Your task to perform on an android device: Set the phone to "Do not disturb". Image 0: 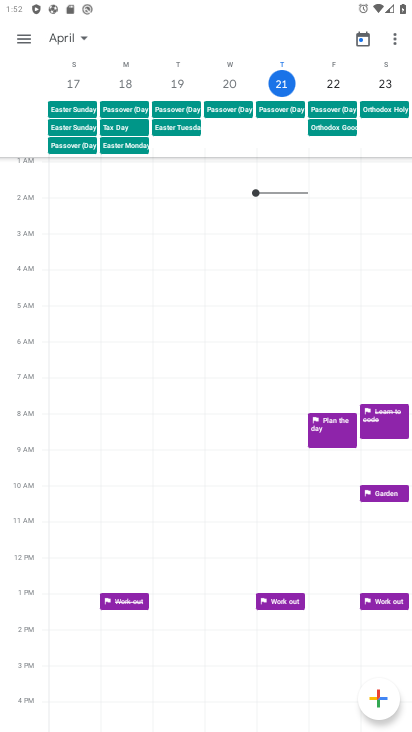
Step 0: press home button
Your task to perform on an android device: Set the phone to "Do not disturb". Image 1: 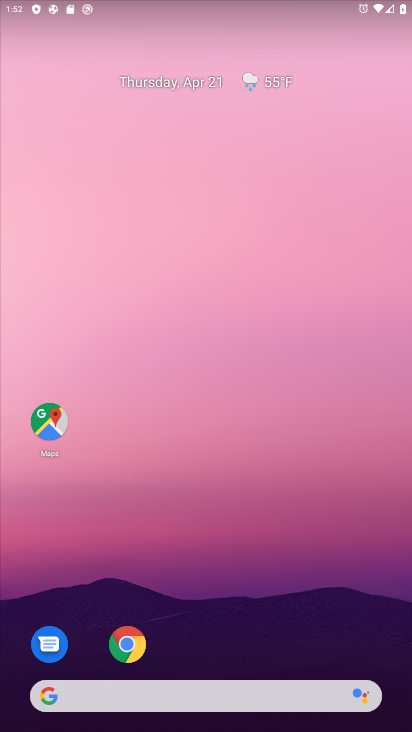
Step 1: drag from (286, 598) to (262, 127)
Your task to perform on an android device: Set the phone to "Do not disturb". Image 2: 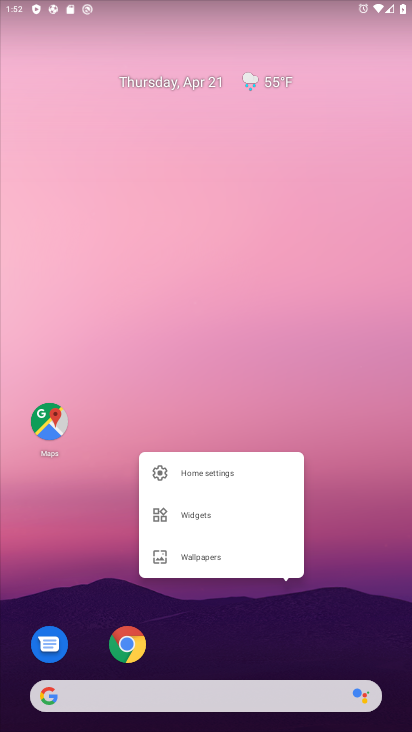
Step 2: drag from (360, 625) to (274, 72)
Your task to perform on an android device: Set the phone to "Do not disturb". Image 3: 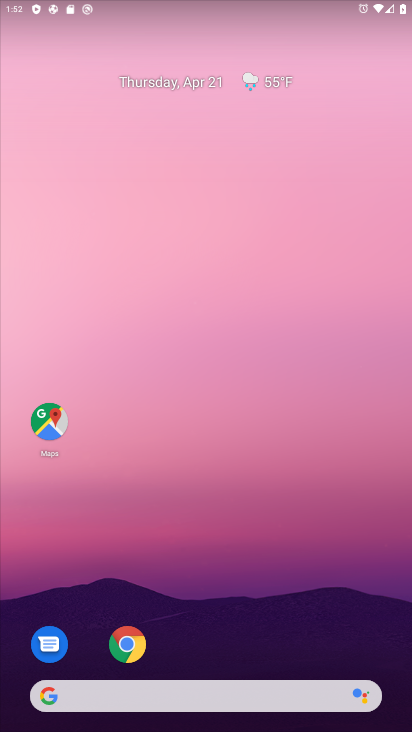
Step 3: drag from (246, 640) to (235, 12)
Your task to perform on an android device: Set the phone to "Do not disturb". Image 4: 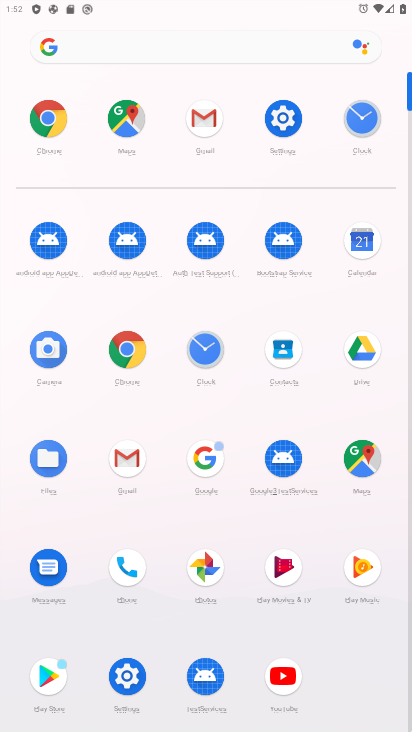
Step 4: click (292, 122)
Your task to perform on an android device: Set the phone to "Do not disturb". Image 5: 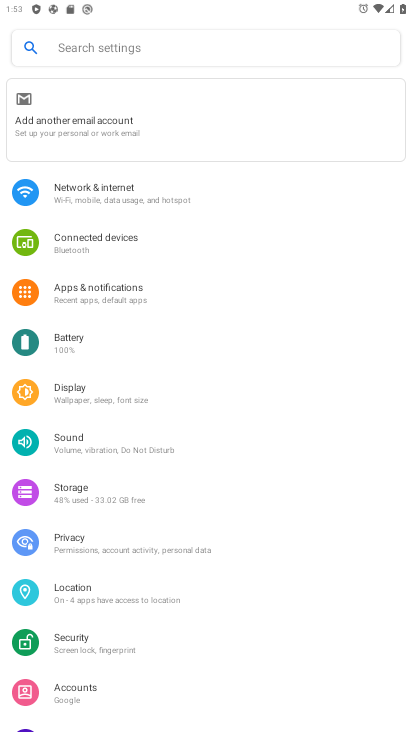
Step 5: click (243, 449)
Your task to perform on an android device: Set the phone to "Do not disturb". Image 6: 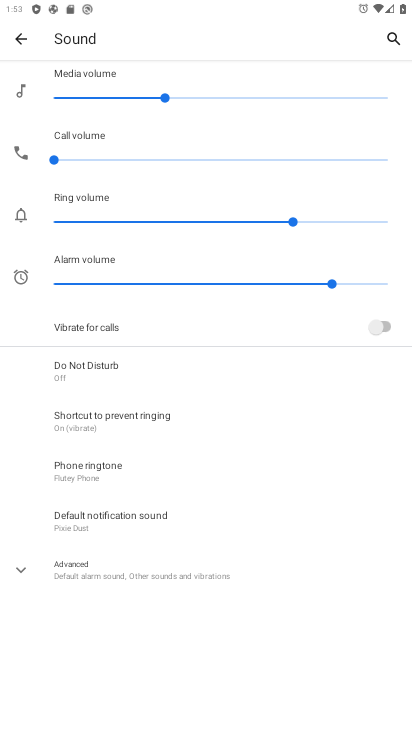
Step 6: click (195, 365)
Your task to perform on an android device: Set the phone to "Do not disturb". Image 7: 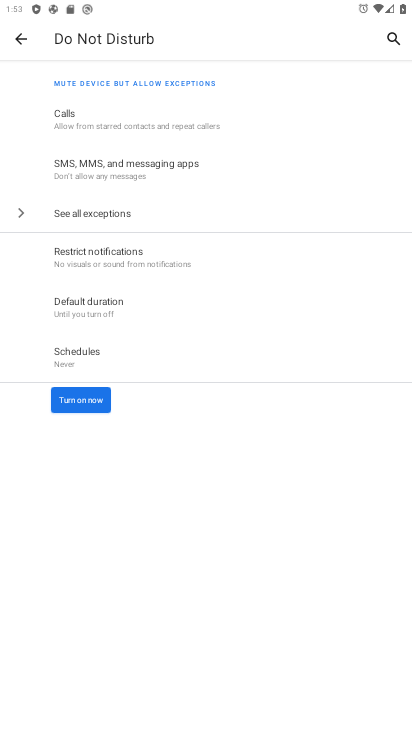
Step 7: click (82, 406)
Your task to perform on an android device: Set the phone to "Do not disturb". Image 8: 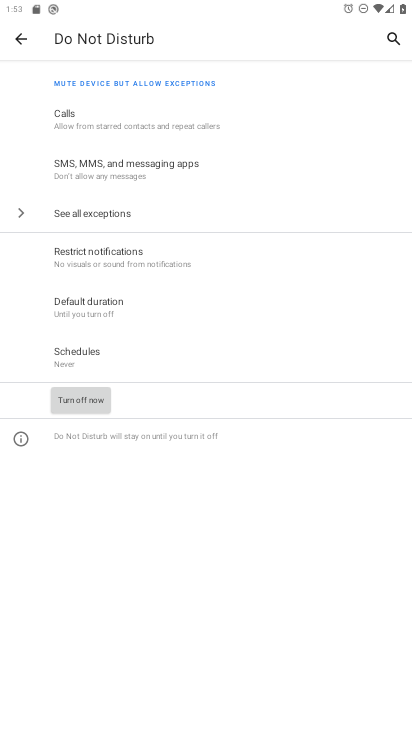
Step 8: task complete